Your task to perform on an android device: Do I have any events tomorrow? Image 0: 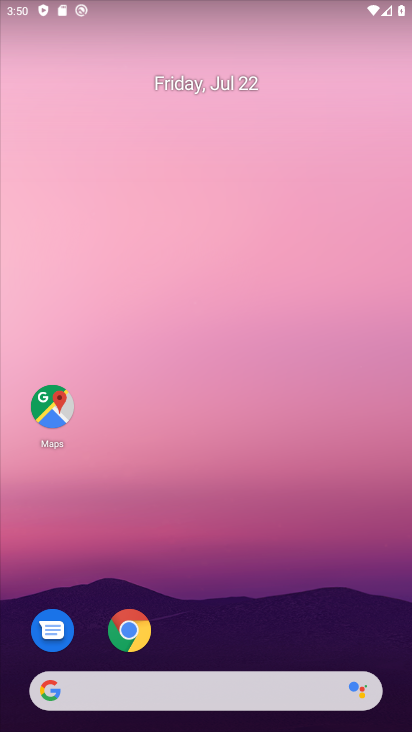
Step 0: drag from (147, 675) to (170, 38)
Your task to perform on an android device: Do I have any events tomorrow? Image 1: 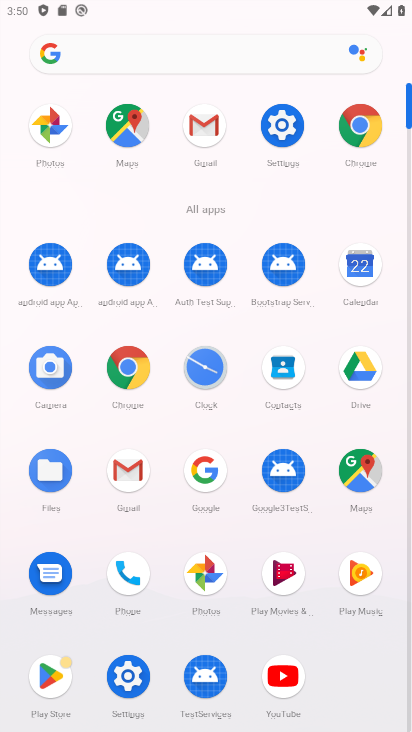
Step 1: click (351, 276)
Your task to perform on an android device: Do I have any events tomorrow? Image 2: 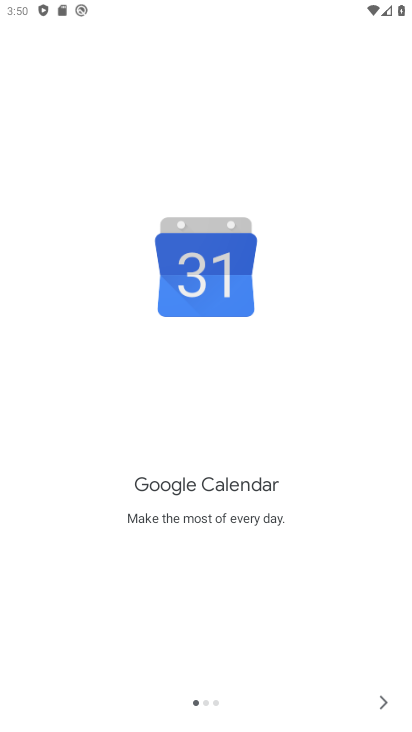
Step 2: click (386, 700)
Your task to perform on an android device: Do I have any events tomorrow? Image 3: 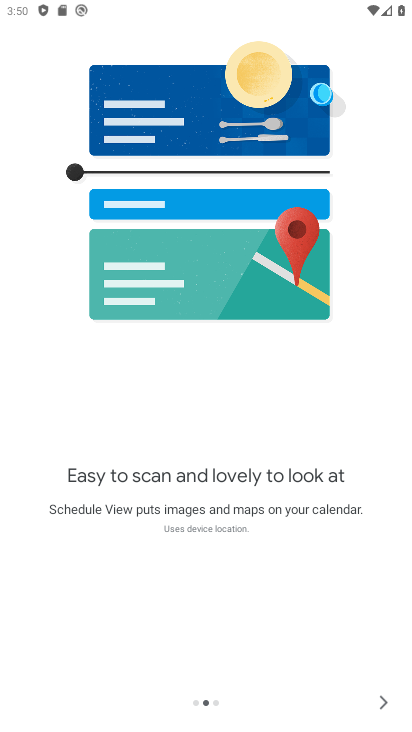
Step 3: click (387, 700)
Your task to perform on an android device: Do I have any events tomorrow? Image 4: 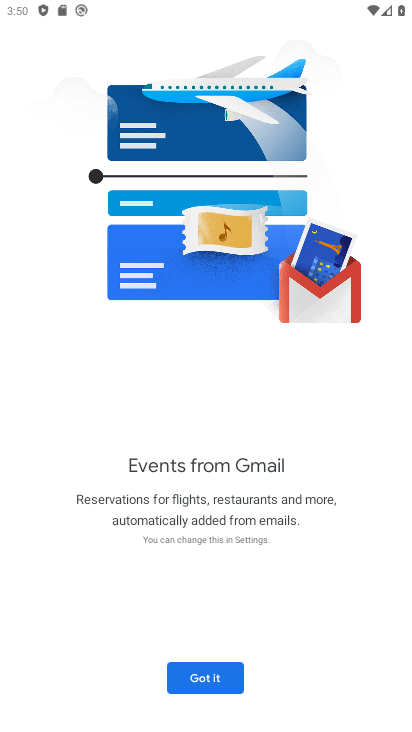
Step 4: click (207, 683)
Your task to perform on an android device: Do I have any events tomorrow? Image 5: 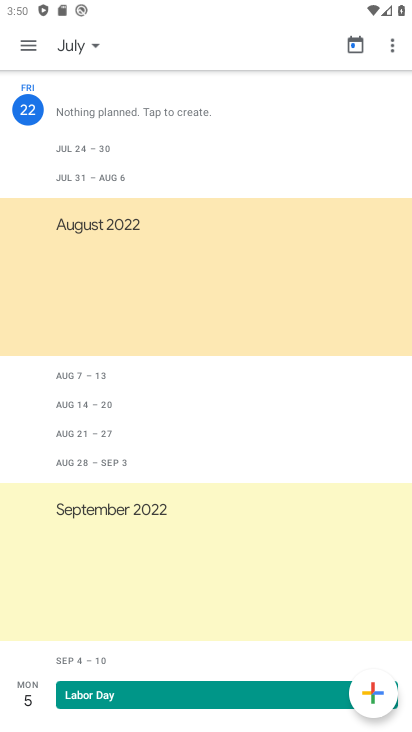
Step 5: click (92, 44)
Your task to perform on an android device: Do I have any events tomorrow? Image 6: 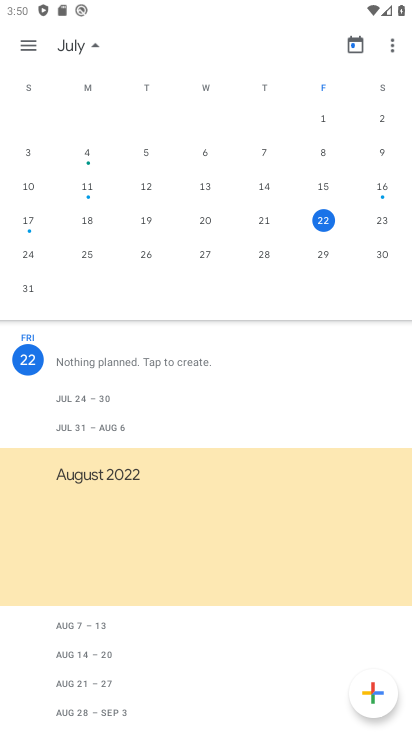
Step 6: task complete